Your task to perform on an android device: Do I have any events this weekend? Image 0: 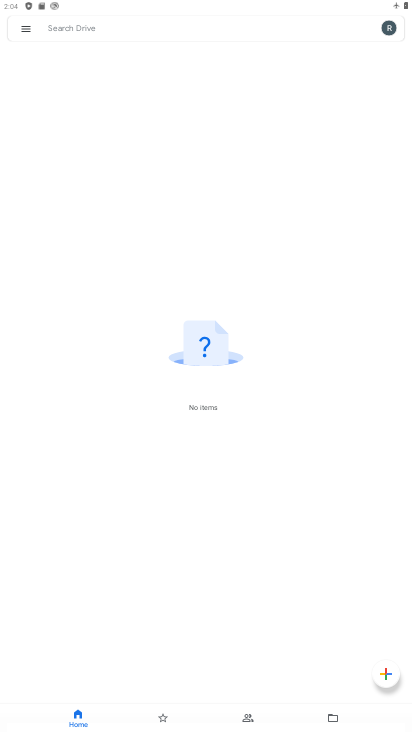
Step 0: press home button
Your task to perform on an android device: Do I have any events this weekend? Image 1: 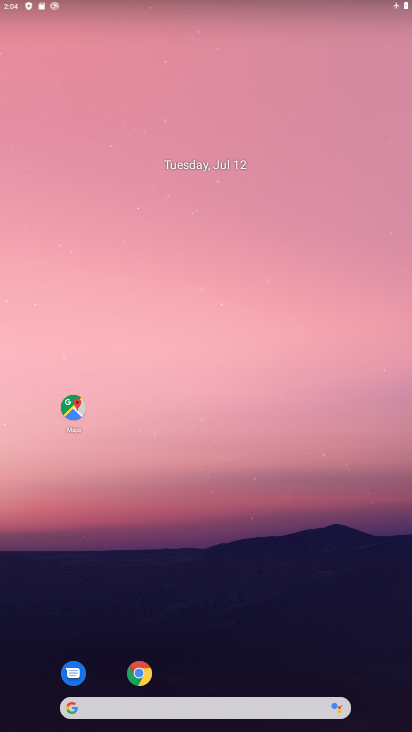
Step 1: drag from (215, 568) to (215, 243)
Your task to perform on an android device: Do I have any events this weekend? Image 2: 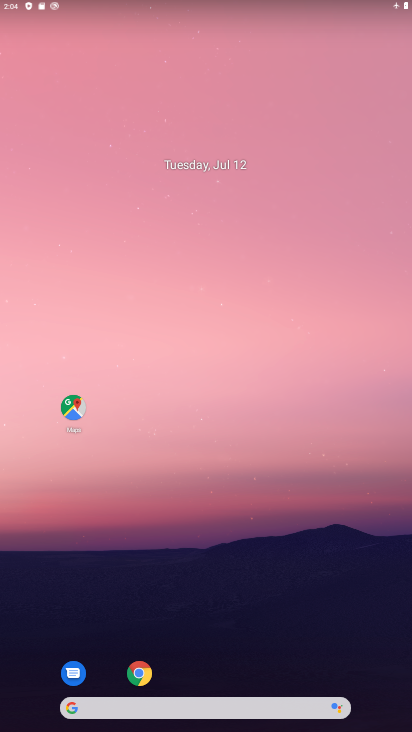
Step 2: drag from (231, 630) to (261, 257)
Your task to perform on an android device: Do I have any events this weekend? Image 3: 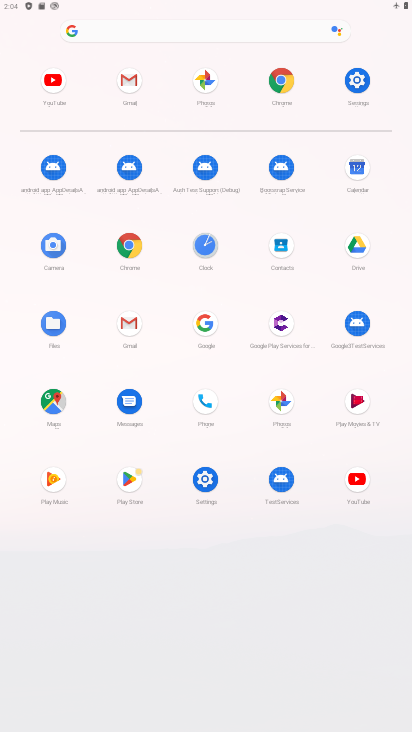
Step 3: click (358, 151)
Your task to perform on an android device: Do I have any events this weekend? Image 4: 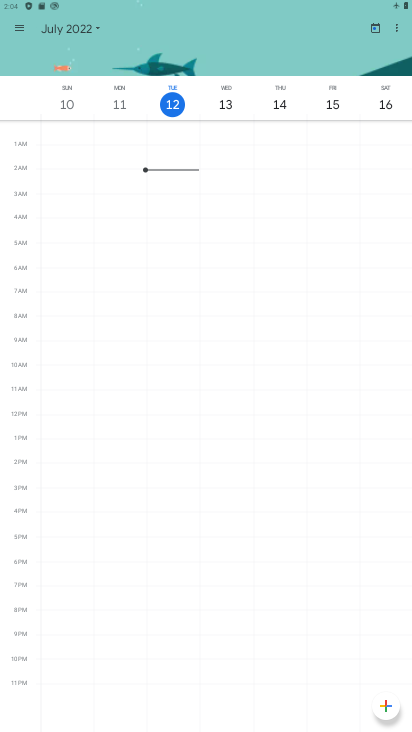
Step 4: task complete